Your task to perform on an android device: Open Yahoo.com Image 0: 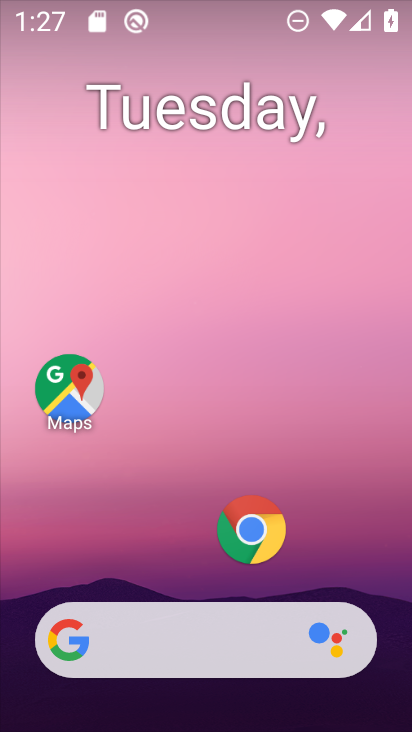
Step 0: drag from (230, 678) to (335, 1)
Your task to perform on an android device: Open Yahoo.com Image 1: 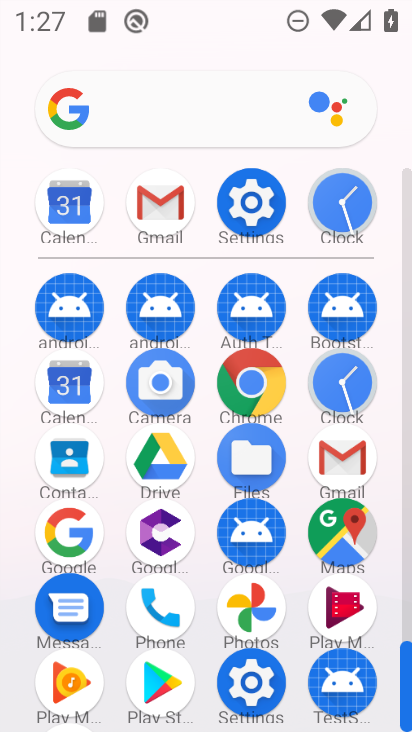
Step 1: click (256, 395)
Your task to perform on an android device: Open Yahoo.com Image 2: 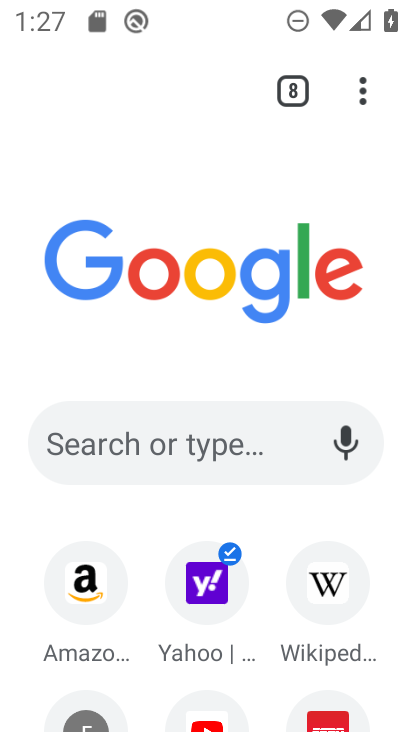
Step 2: click (180, 582)
Your task to perform on an android device: Open Yahoo.com Image 3: 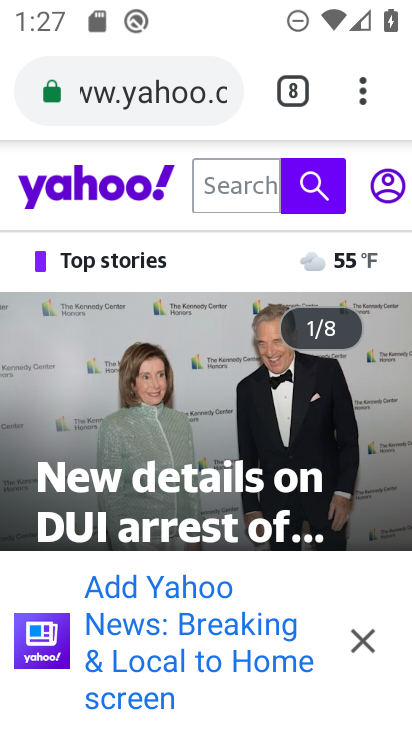
Step 3: task complete